Your task to perform on an android device: Open calendar and show me the third week of next month Image 0: 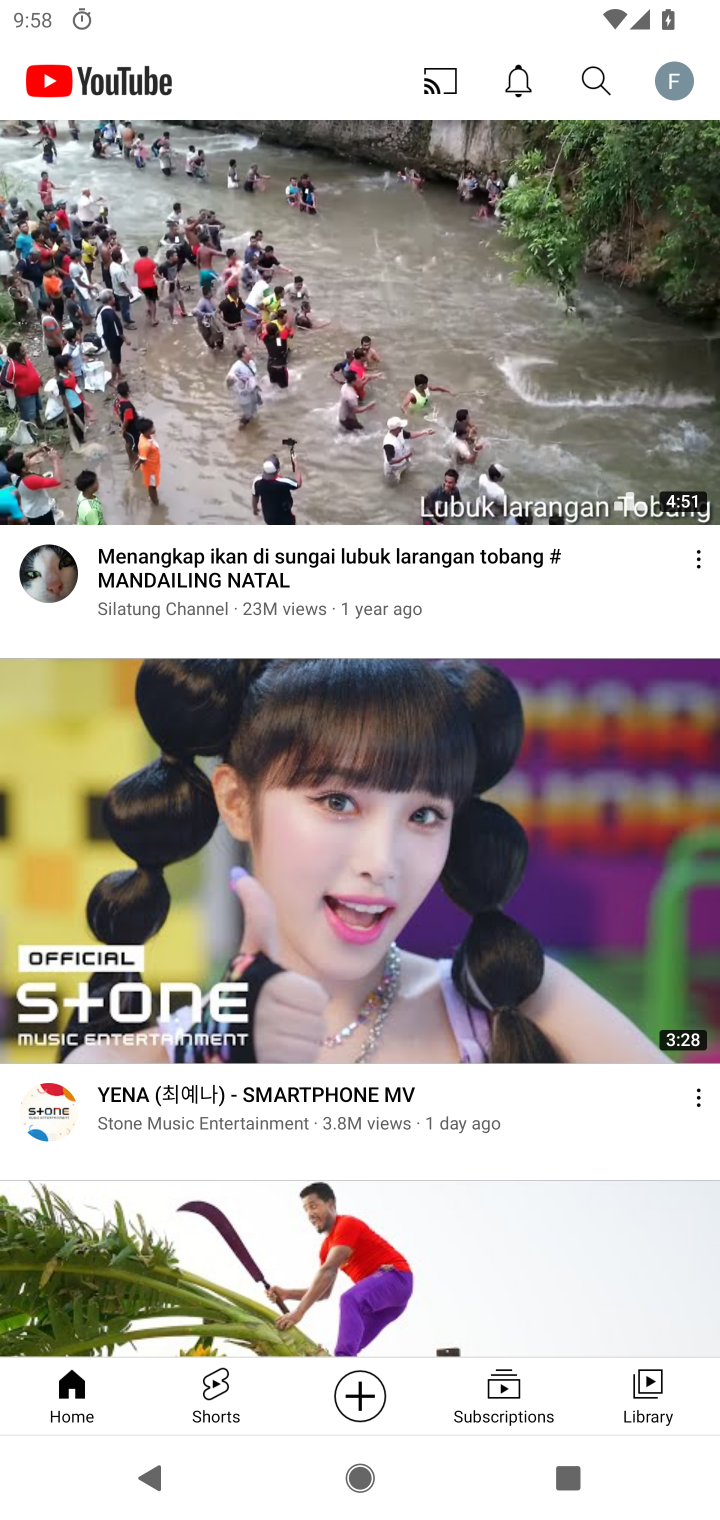
Step 0: press home button
Your task to perform on an android device: Open calendar and show me the third week of next month Image 1: 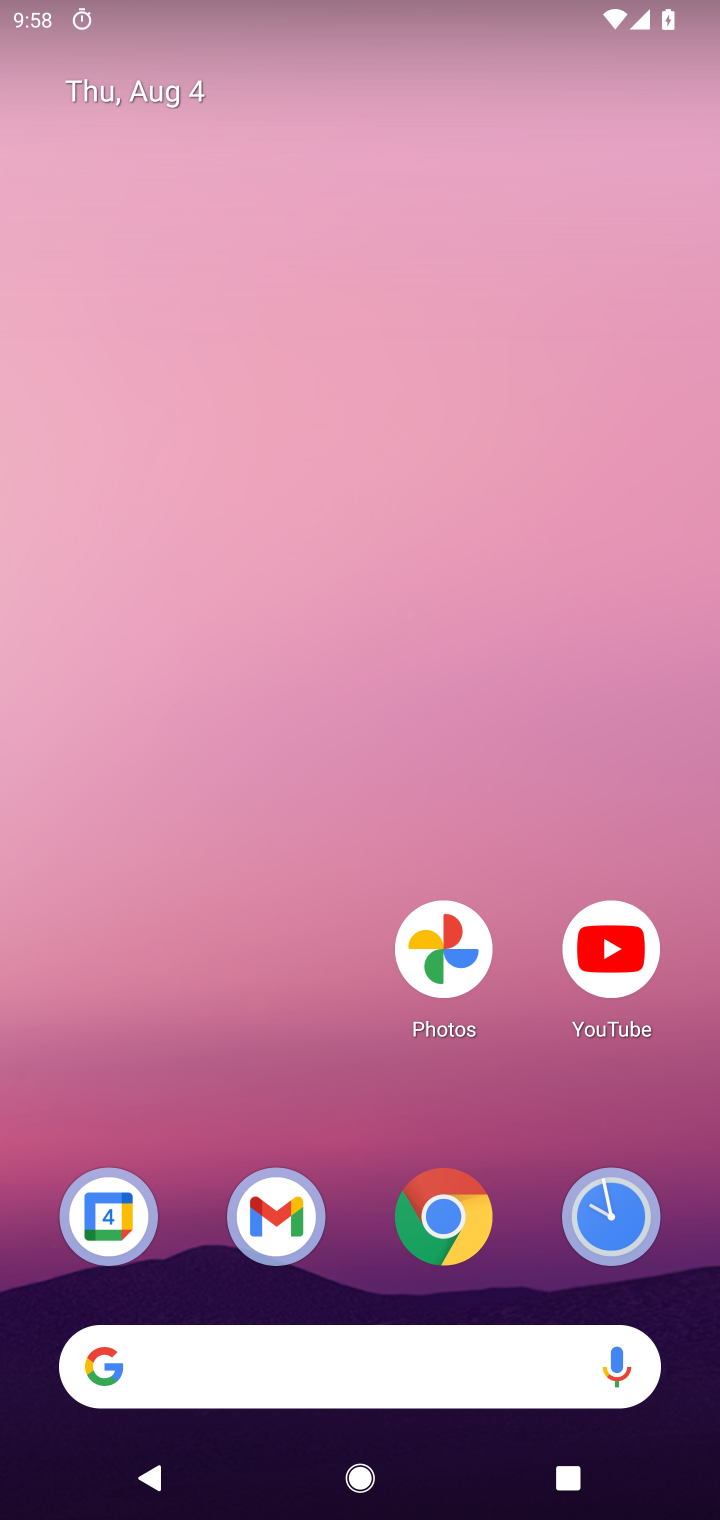
Step 1: drag from (361, 1236) to (361, 0)
Your task to perform on an android device: Open calendar and show me the third week of next month Image 2: 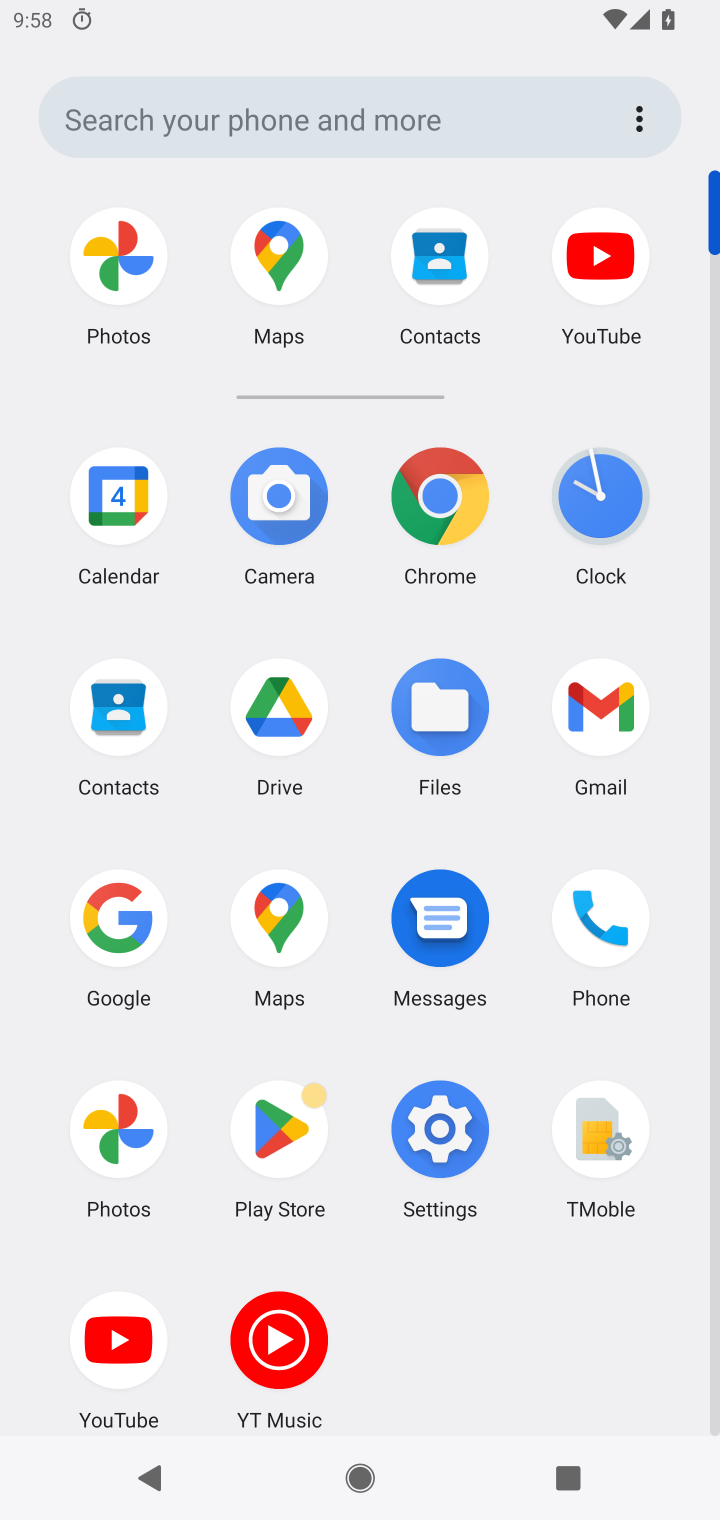
Step 2: click (137, 509)
Your task to perform on an android device: Open calendar and show me the third week of next month Image 3: 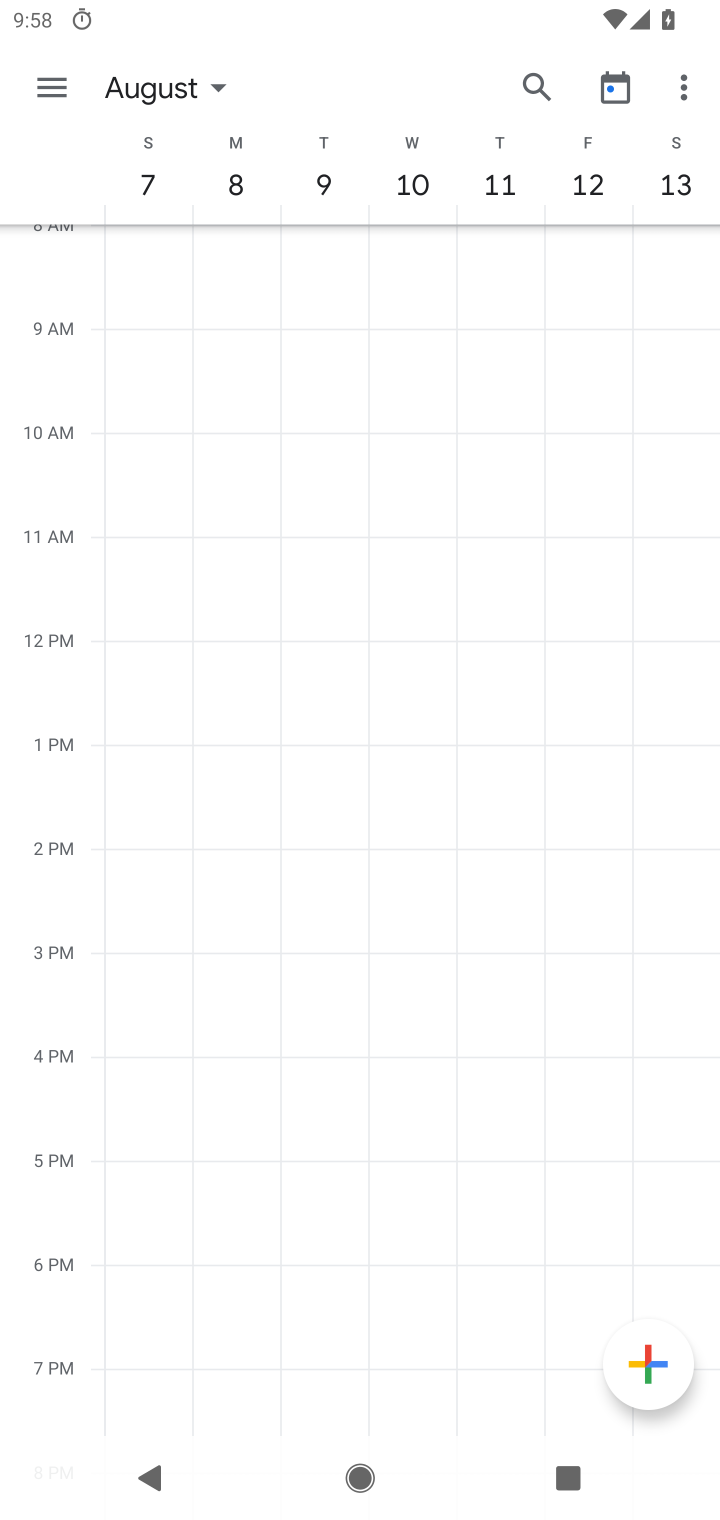
Step 3: click (219, 93)
Your task to perform on an android device: Open calendar and show me the third week of next month Image 4: 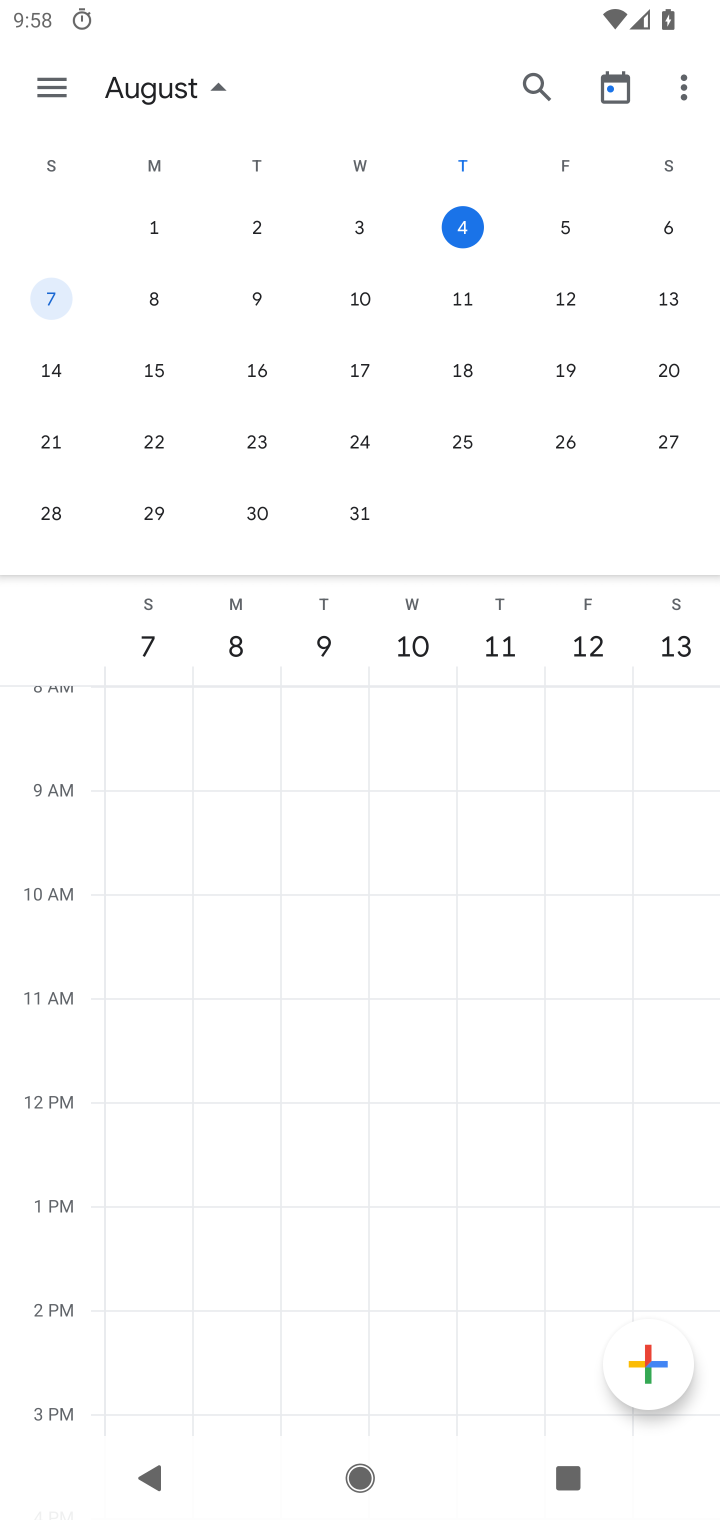
Step 4: drag from (581, 389) to (41, 379)
Your task to perform on an android device: Open calendar and show me the third week of next month Image 5: 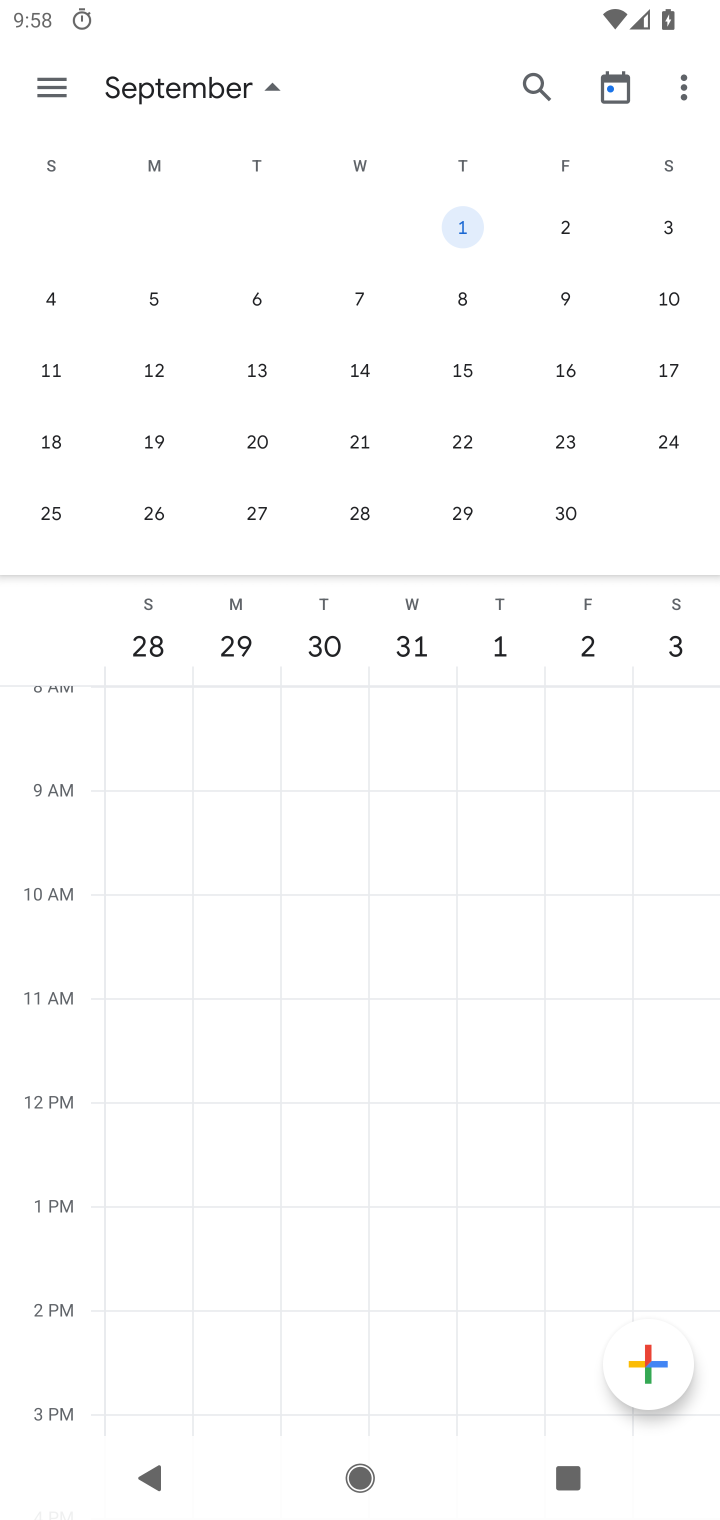
Step 5: click (153, 439)
Your task to perform on an android device: Open calendar and show me the third week of next month Image 6: 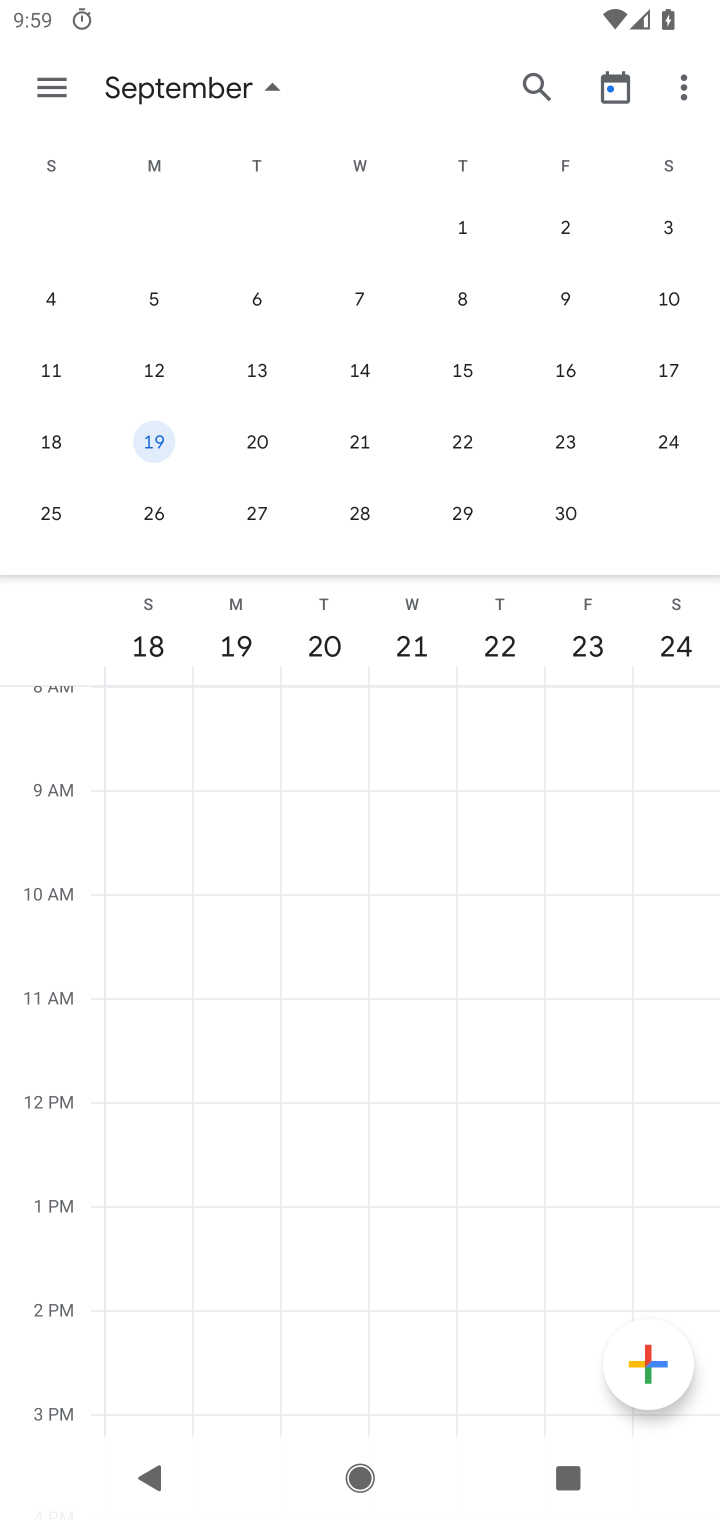
Step 6: click (57, 86)
Your task to perform on an android device: Open calendar and show me the third week of next month Image 7: 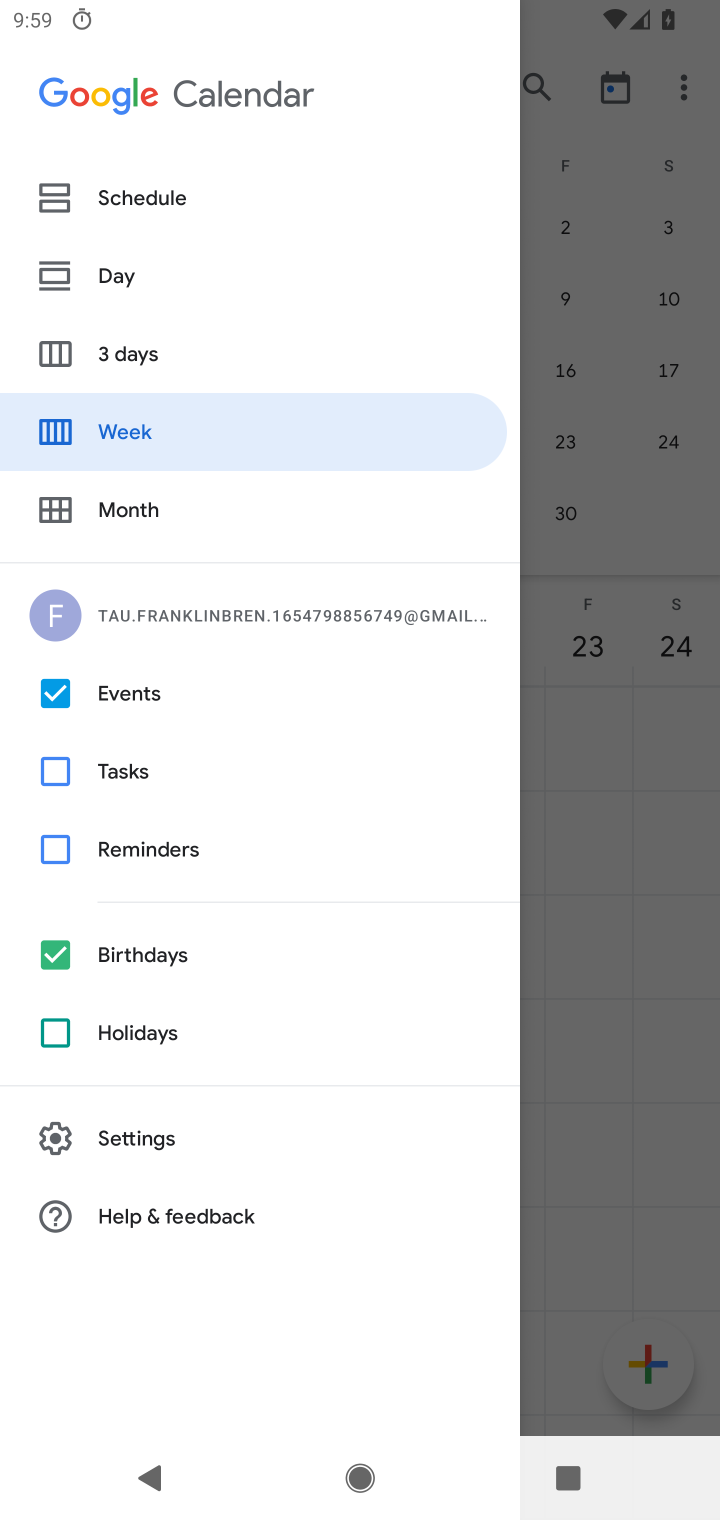
Step 7: click (175, 428)
Your task to perform on an android device: Open calendar and show me the third week of next month Image 8: 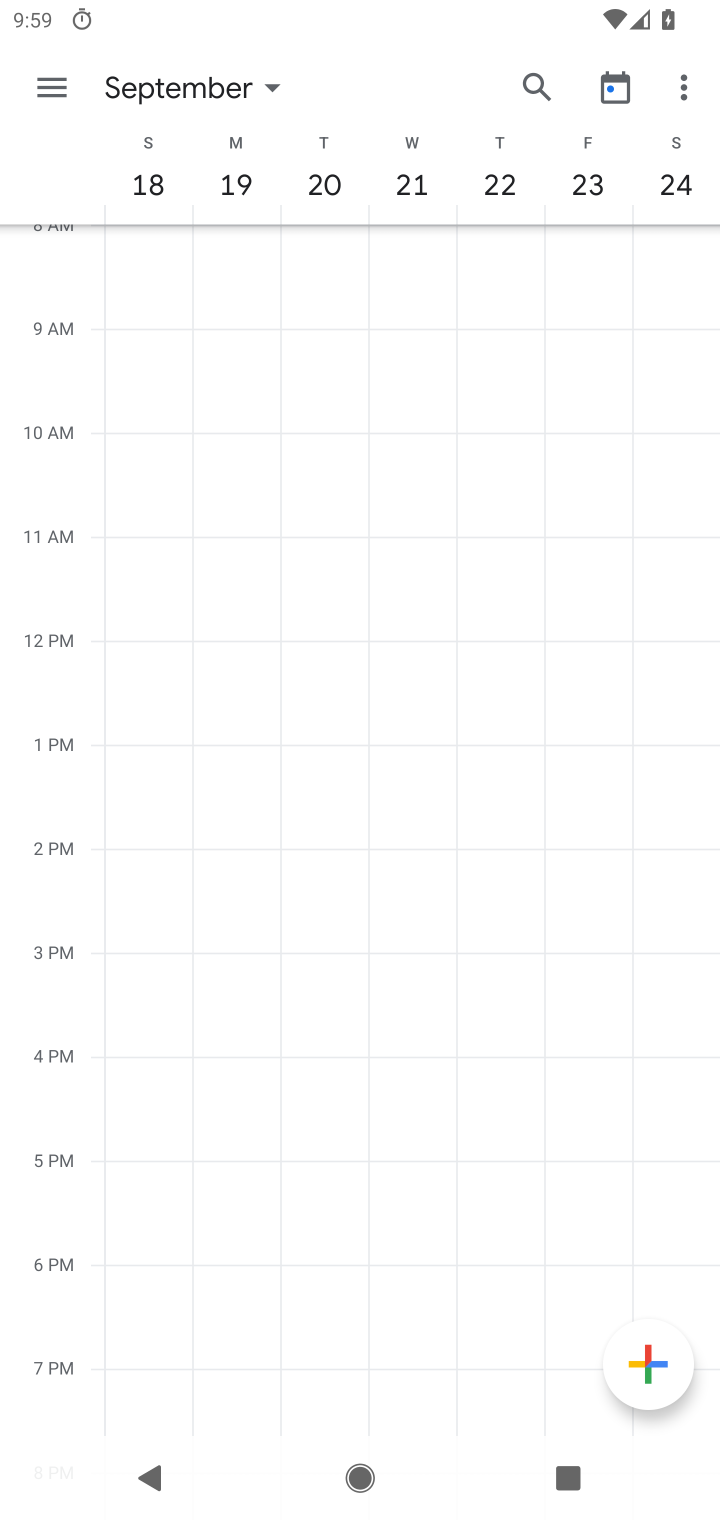
Step 8: task complete